Your task to perform on an android device: Go to notification settings Image 0: 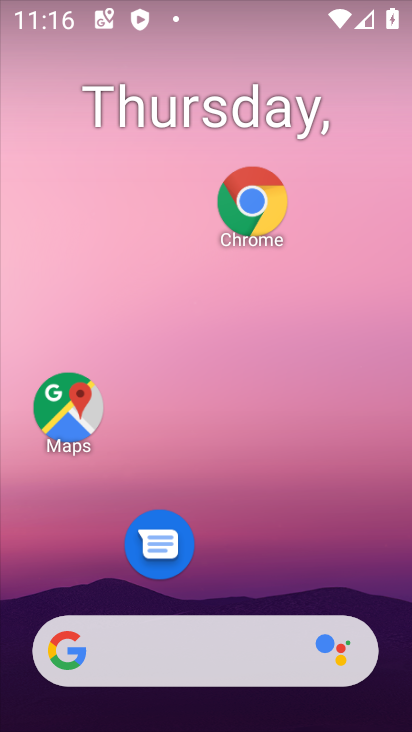
Step 0: drag from (226, 597) to (220, 150)
Your task to perform on an android device: Go to notification settings Image 1: 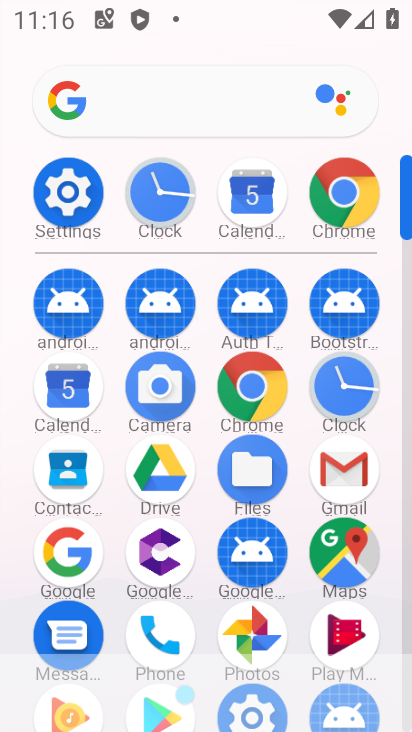
Step 1: drag from (200, 595) to (198, 143)
Your task to perform on an android device: Go to notification settings Image 2: 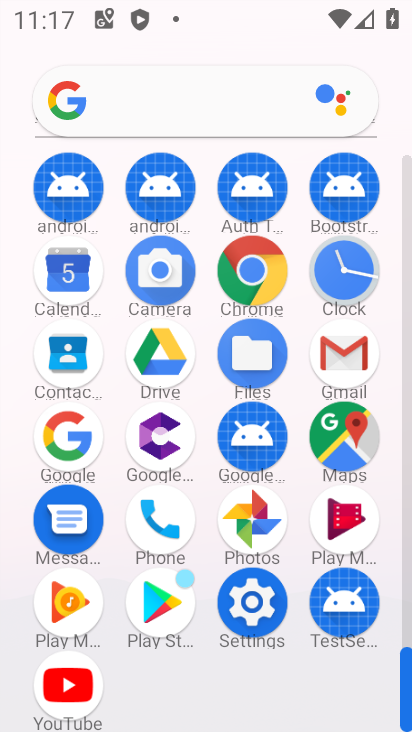
Step 2: click (250, 597)
Your task to perform on an android device: Go to notification settings Image 3: 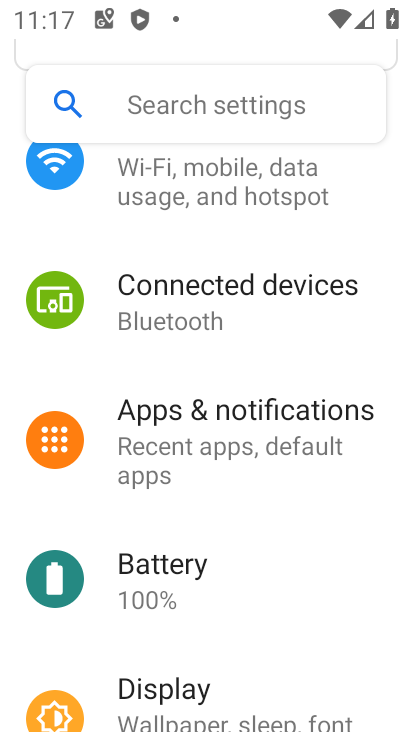
Step 3: click (199, 466)
Your task to perform on an android device: Go to notification settings Image 4: 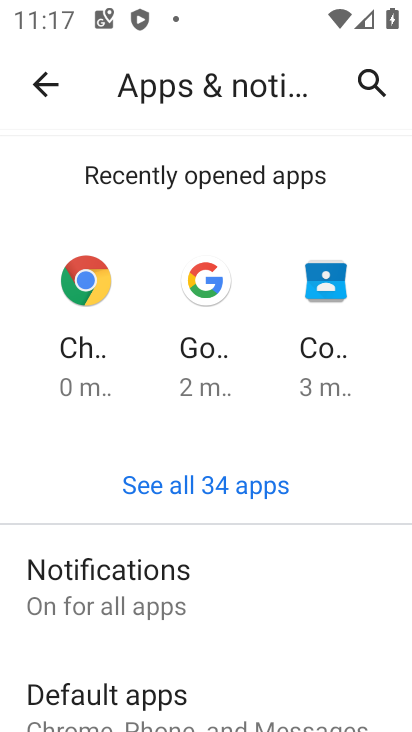
Step 4: click (192, 588)
Your task to perform on an android device: Go to notification settings Image 5: 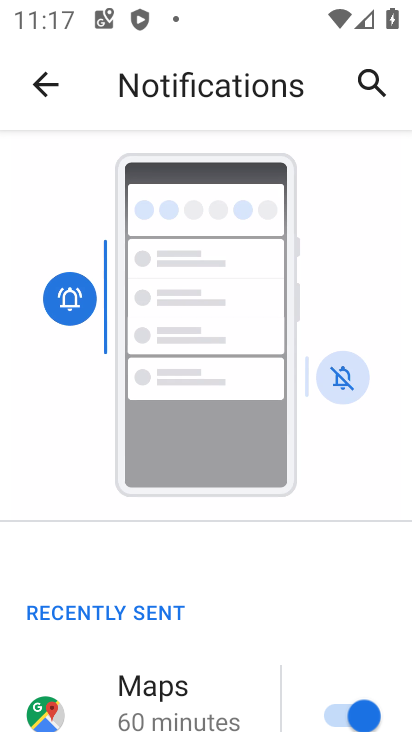
Step 5: drag from (235, 662) to (223, 188)
Your task to perform on an android device: Go to notification settings Image 6: 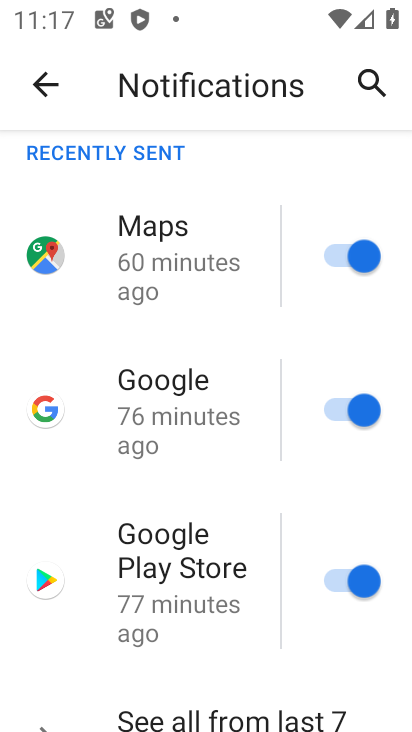
Step 6: drag from (220, 684) to (242, 170)
Your task to perform on an android device: Go to notification settings Image 7: 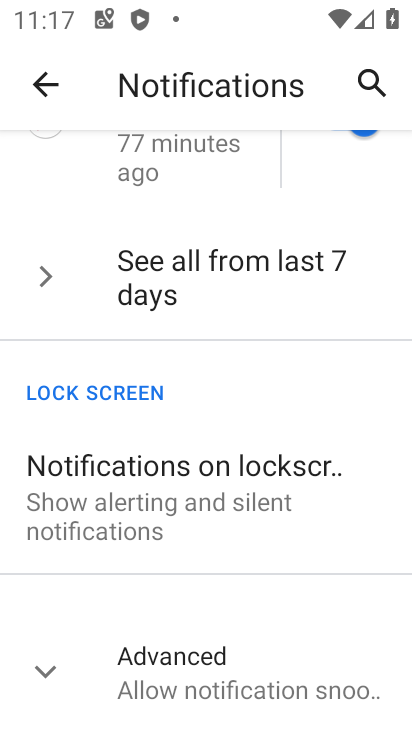
Step 7: click (47, 667)
Your task to perform on an android device: Go to notification settings Image 8: 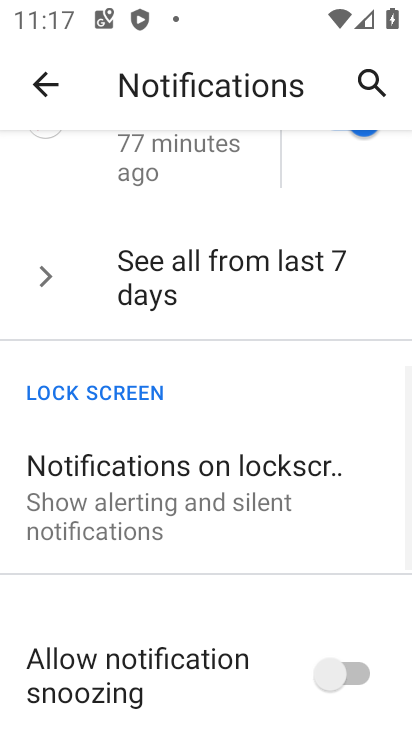
Step 8: task complete